Your task to perform on an android device: toggle show notifications on the lock screen Image 0: 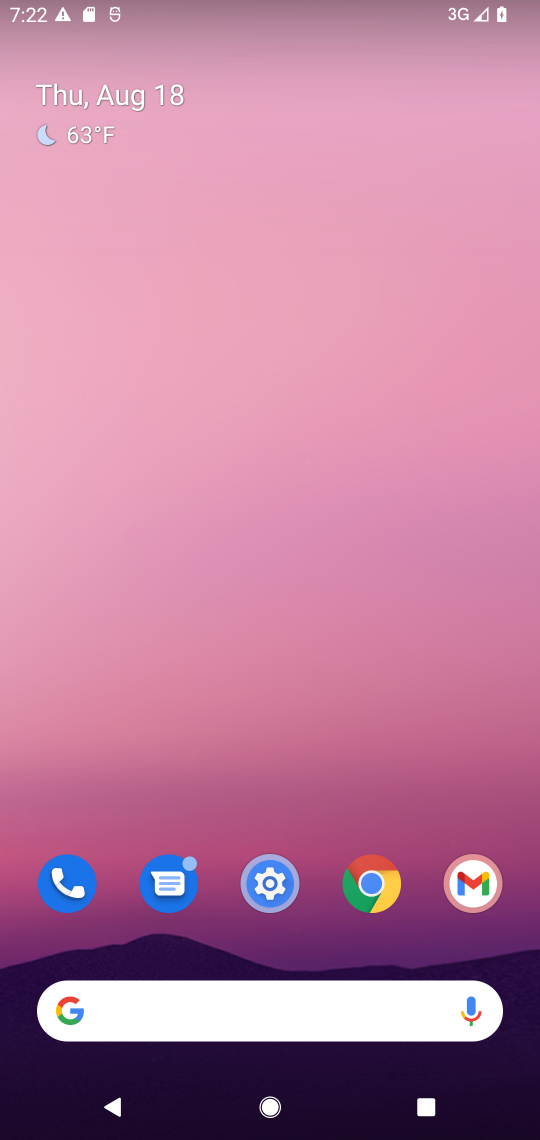
Step 0: click (268, 871)
Your task to perform on an android device: toggle show notifications on the lock screen Image 1: 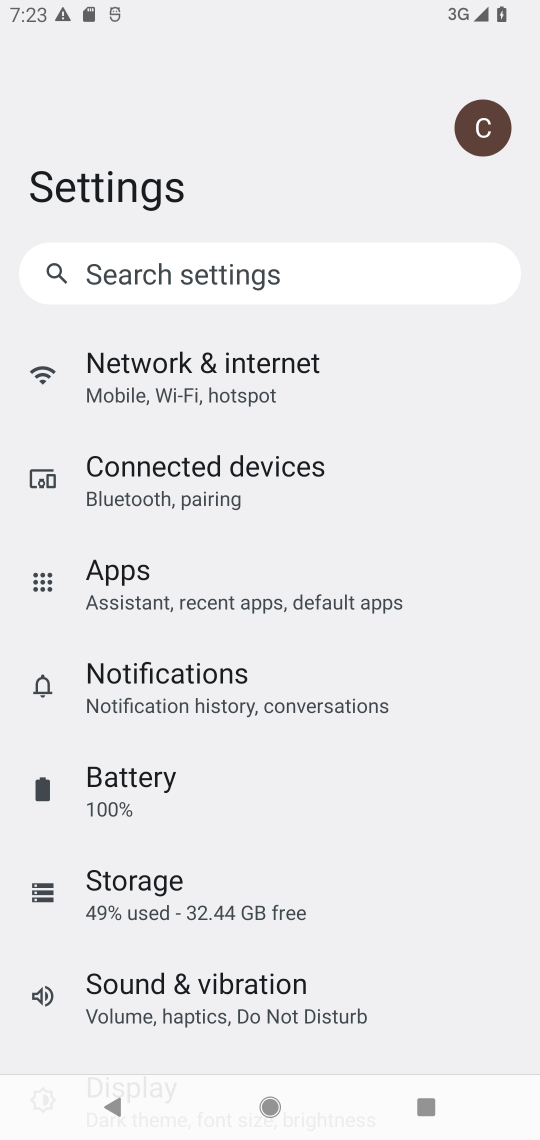
Step 1: click (198, 685)
Your task to perform on an android device: toggle show notifications on the lock screen Image 2: 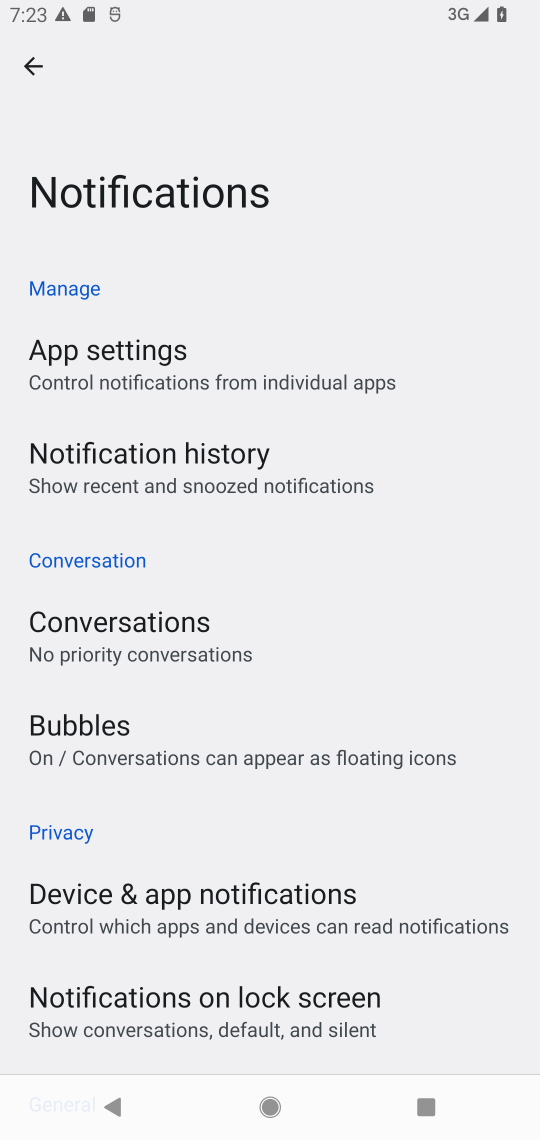
Step 2: click (296, 979)
Your task to perform on an android device: toggle show notifications on the lock screen Image 3: 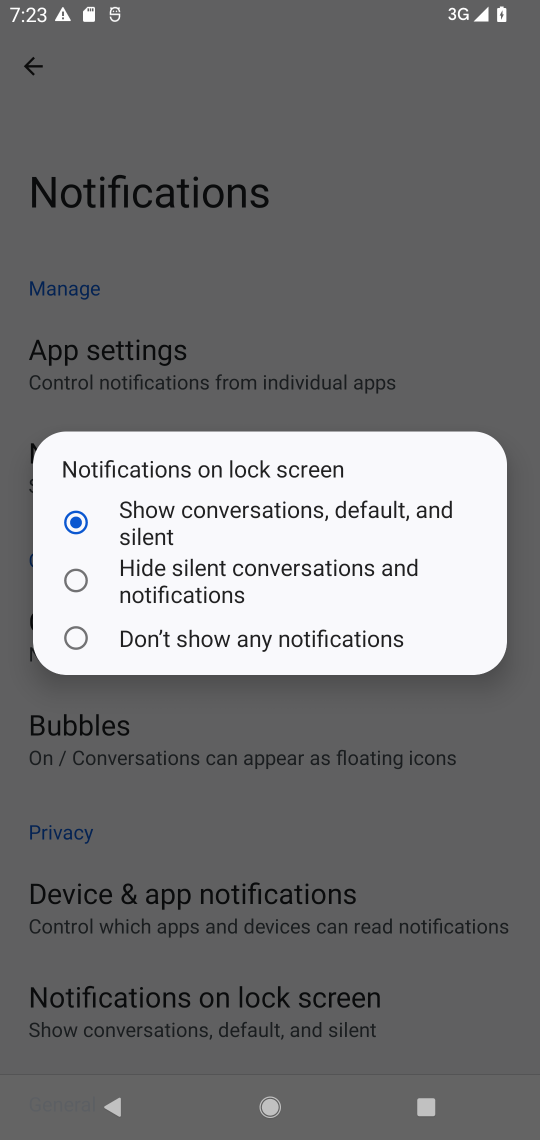
Step 3: task complete